Your task to perform on an android device: Go to Reddit.com Image 0: 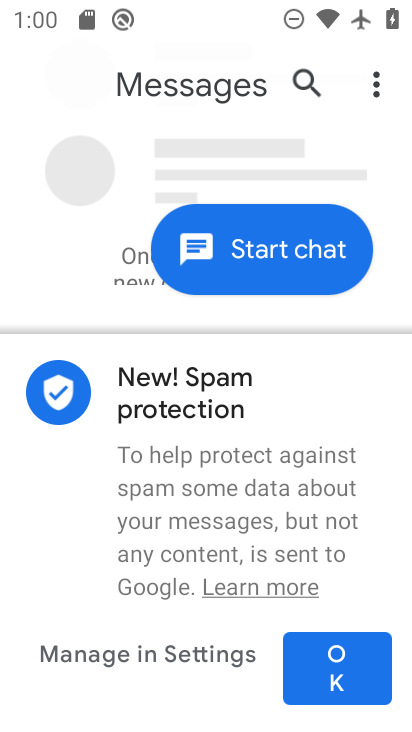
Step 0: press home button
Your task to perform on an android device: Go to Reddit.com Image 1: 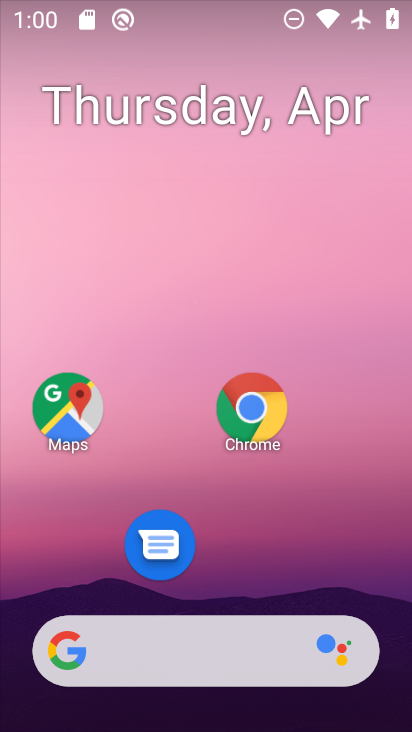
Step 1: drag from (273, 516) to (228, 4)
Your task to perform on an android device: Go to Reddit.com Image 2: 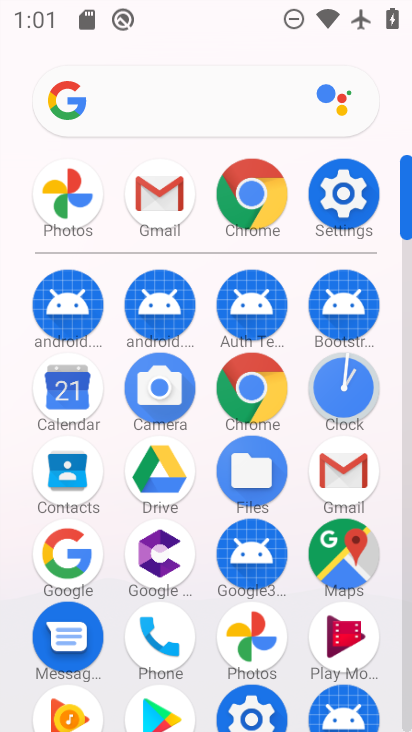
Step 2: click (246, 431)
Your task to perform on an android device: Go to Reddit.com Image 3: 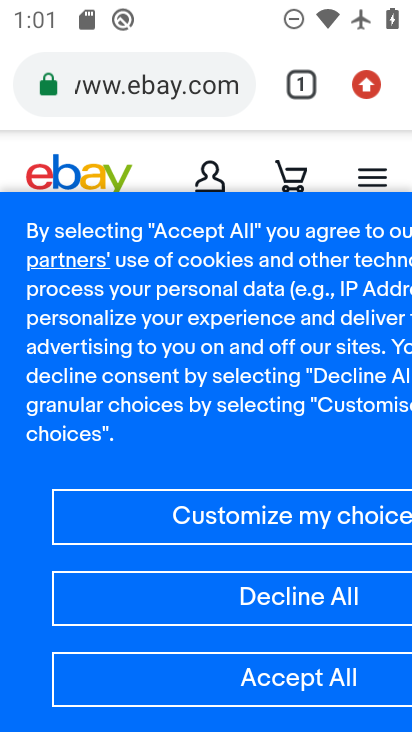
Step 3: click (183, 86)
Your task to perform on an android device: Go to Reddit.com Image 4: 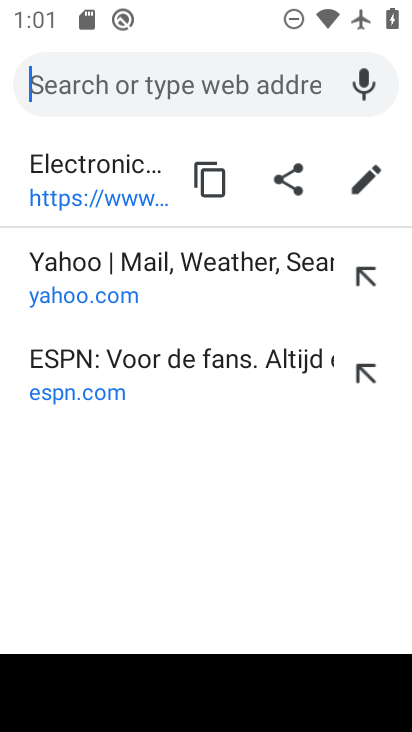
Step 4: type "reddit.com"
Your task to perform on an android device: Go to Reddit.com Image 5: 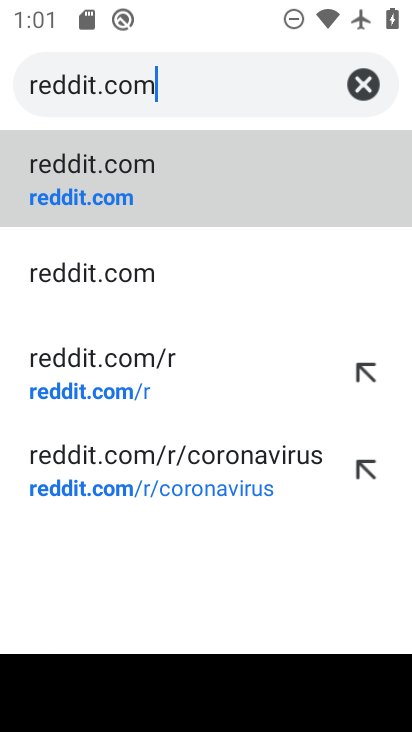
Step 5: click (71, 178)
Your task to perform on an android device: Go to Reddit.com Image 6: 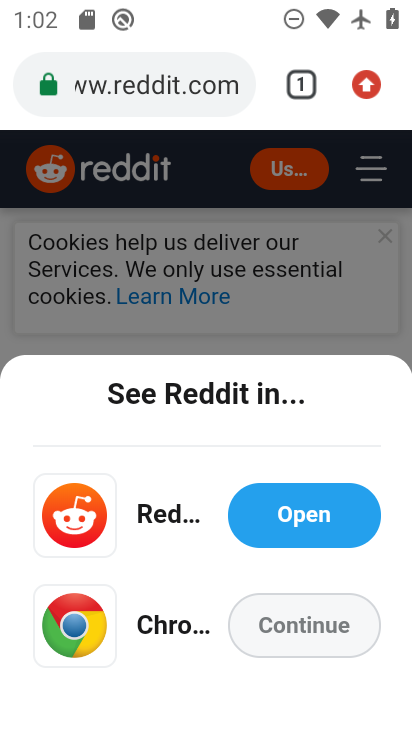
Step 6: task complete